Your task to perform on an android device: Open location settings Image 0: 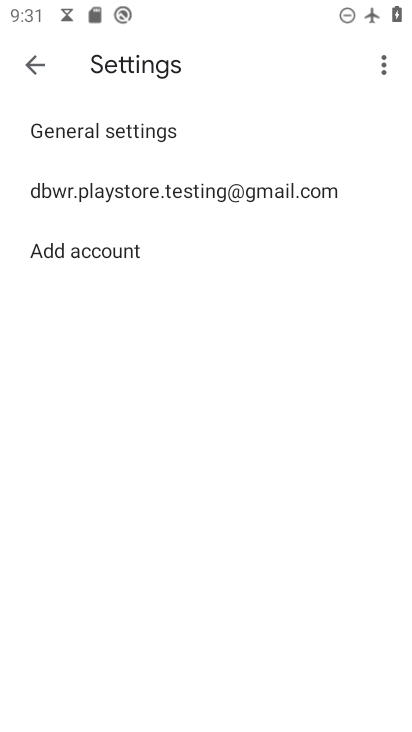
Step 0: press home button
Your task to perform on an android device: Open location settings Image 1: 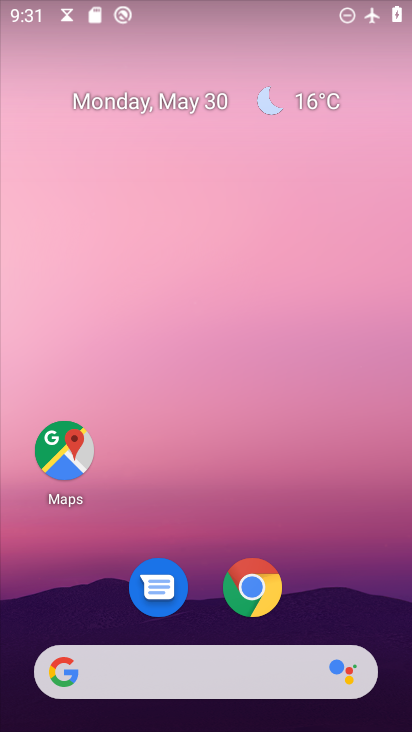
Step 1: drag from (195, 677) to (324, 122)
Your task to perform on an android device: Open location settings Image 2: 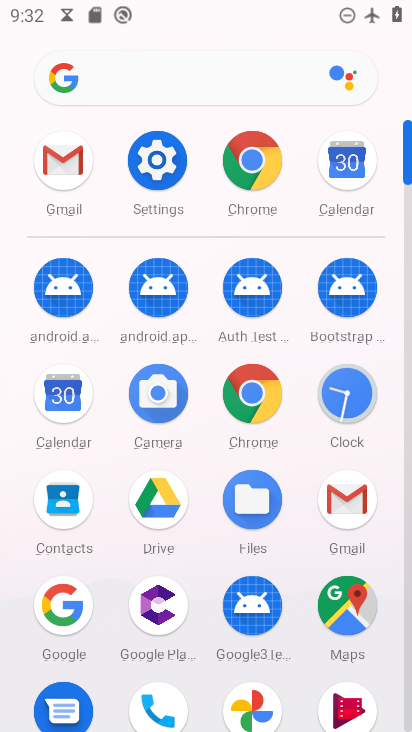
Step 2: click (166, 170)
Your task to perform on an android device: Open location settings Image 3: 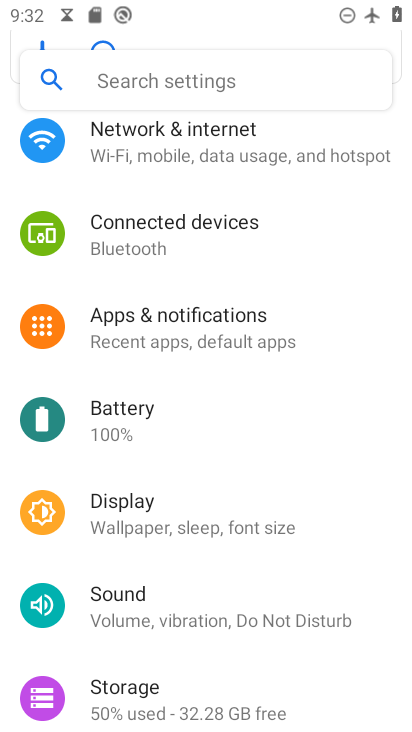
Step 3: drag from (271, 477) to (381, 105)
Your task to perform on an android device: Open location settings Image 4: 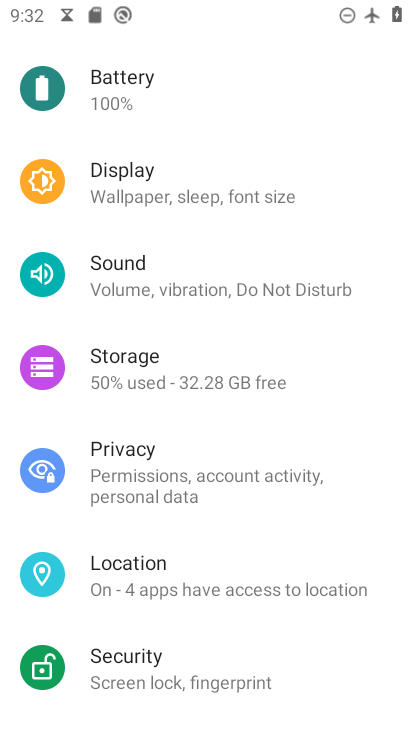
Step 4: click (166, 581)
Your task to perform on an android device: Open location settings Image 5: 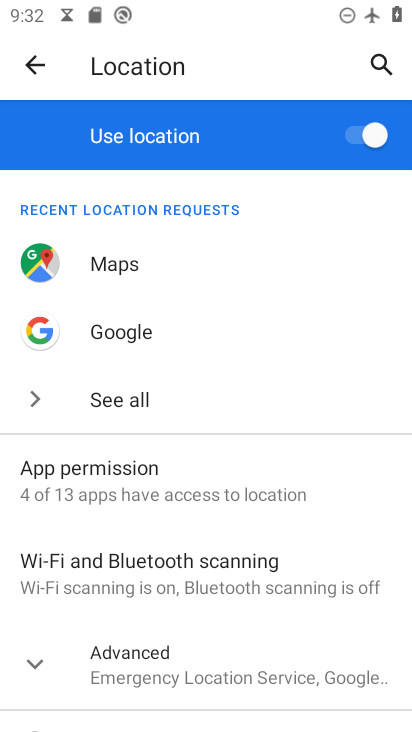
Step 5: task complete